Your task to perform on an android device: stop showing notifications on the lock screen Image 0: 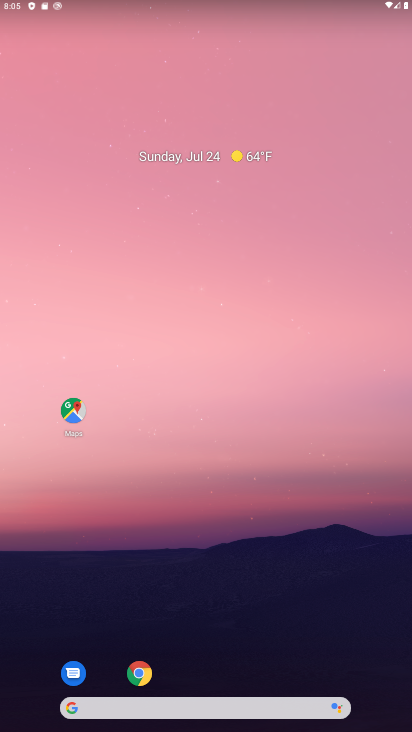
Step 0: drag from (329, 604) to (308, 279)
Your task to perform on an android device: stop showing notifications on the lock screen Image 1: 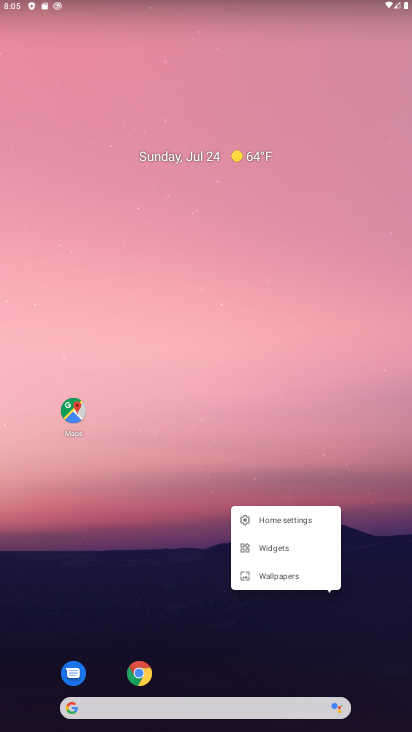
Step 1: click (332, 369)
Your task to perform on an android device: stop showing notifications on the lock screen Image 2: 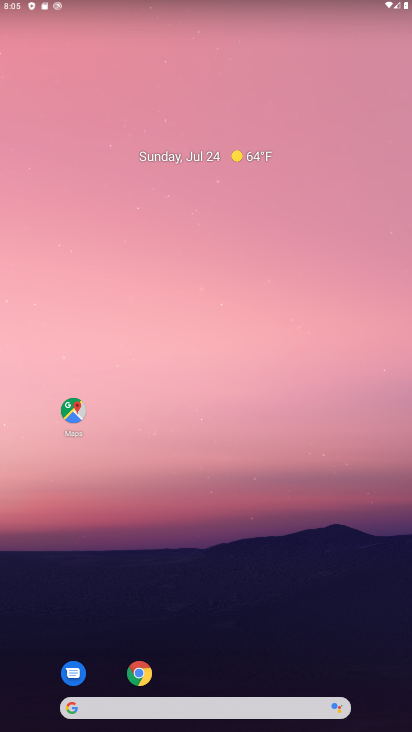
Step 2: drag from (298, 641) to (319, 135)
Your task to perform on an android device: stop showing notifications on the lock screen Image 3: 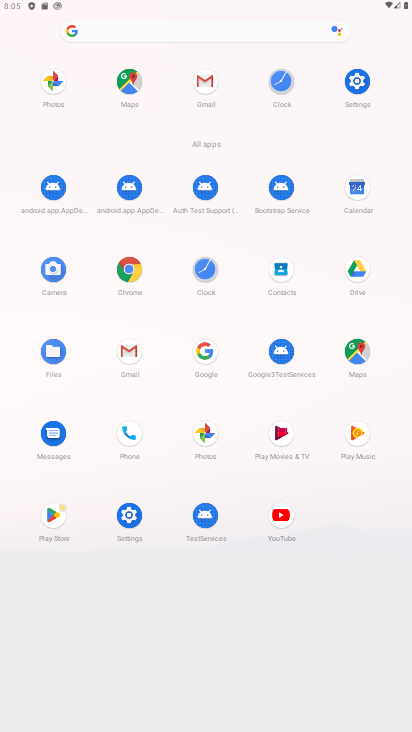
Step 3: click (132, 520)
Your task to perform on an android device: stop showing notifications on the lock screen Image 4: 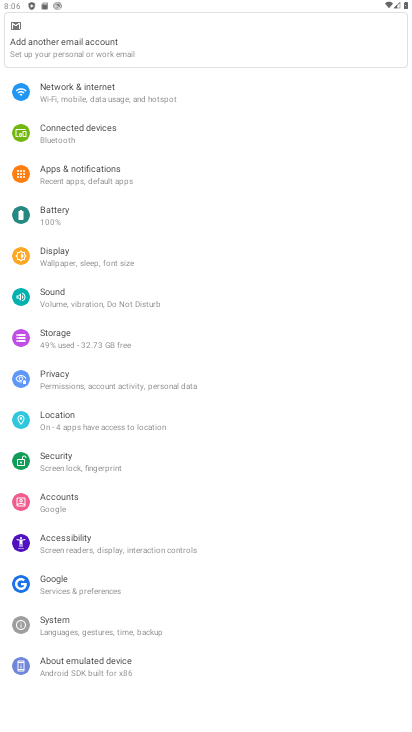
Step 4: click (120, 175)
Your task to perform on an android device: stop showing notifications on the lock screen Image 5: 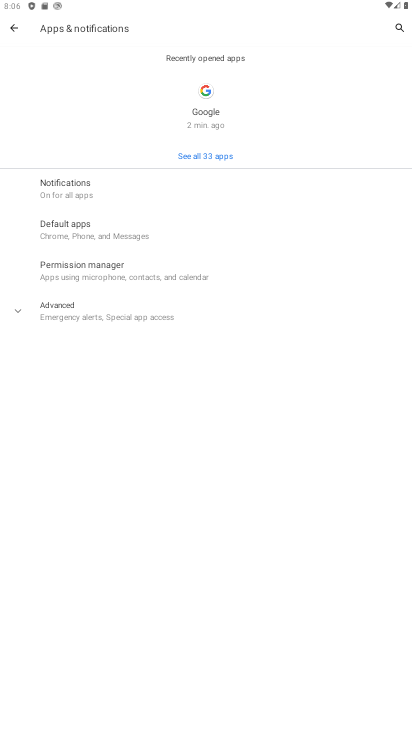
Step 5: click (97, 311)
Your task to perform on an android device: stop showing notifications on the lock screen Image 6: 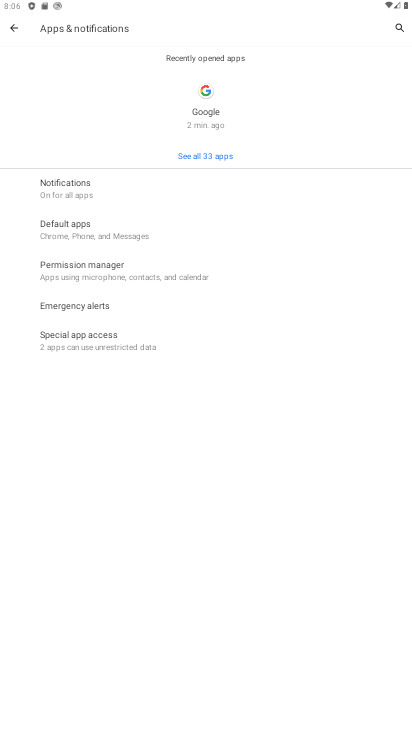
Step 6: click (107, 185)
Your task to perform on an android device: stop showing notifications on the lock screen Image 7: 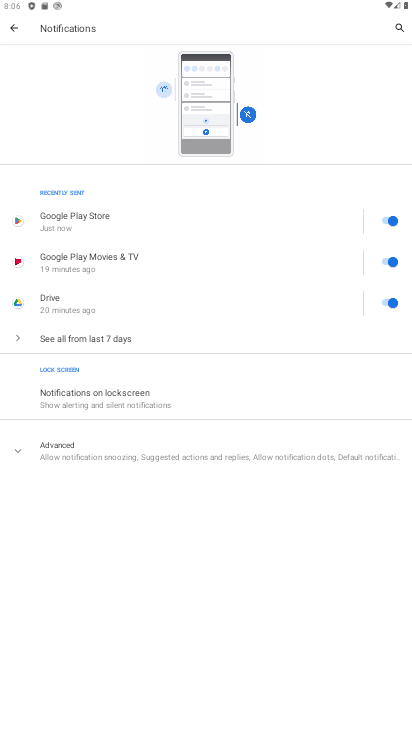
Step 7: click (89, 398)
Your task to perform on an android device: stop showing notifications on the lock screen Image 8: 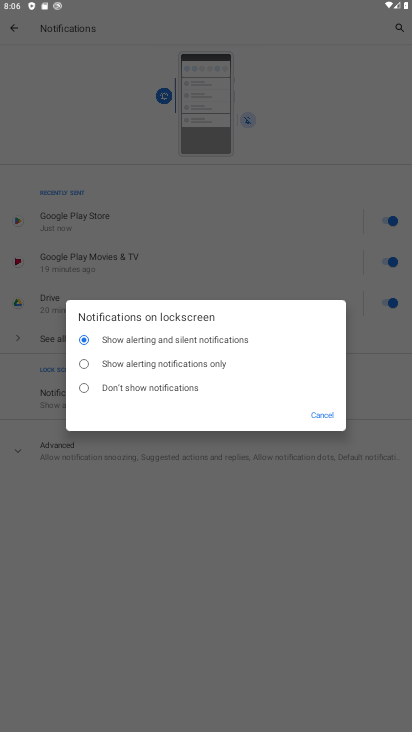
Step 8: click (121, 391)
Your task to perform on an android device: stop showing notifications on the lock screen Image 9: 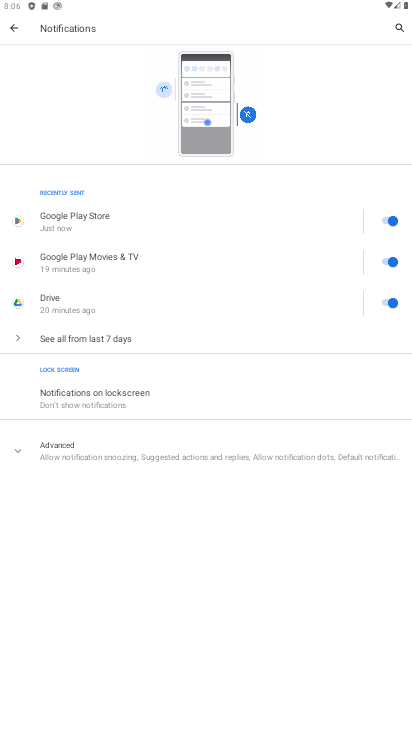
Step 9: task complete